Your task to perform on an android device: find which apps use the phone's location Image 0: 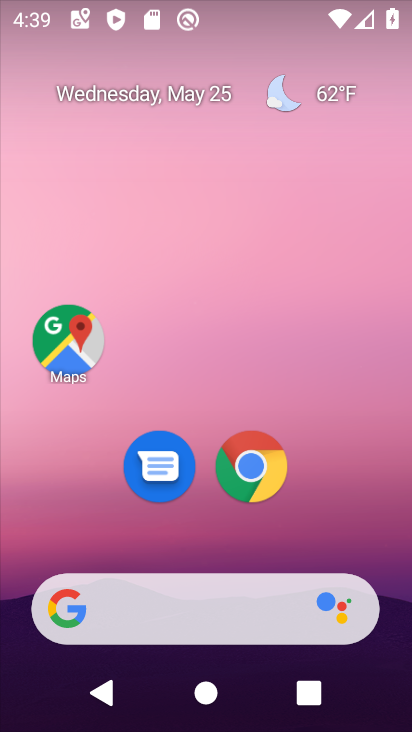
Step 0: drag from (325, 514) to (254, 126)
Your task to perform on an android device: find which apps use the phone's location Image 1: 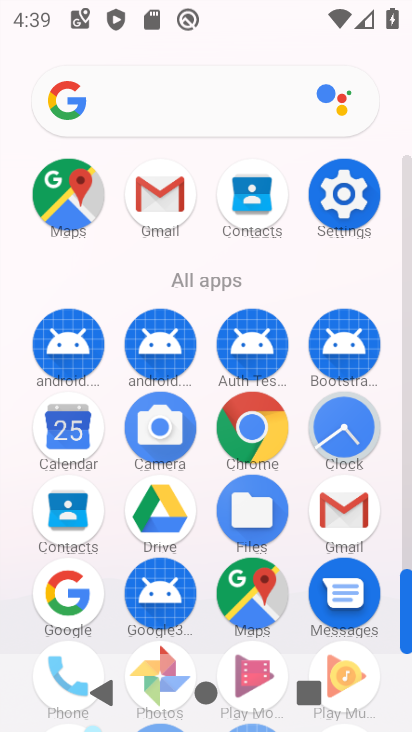
Step 1: click (345, 192)
Your task to perform on an android device: find which apps use the phone's location Image 2: 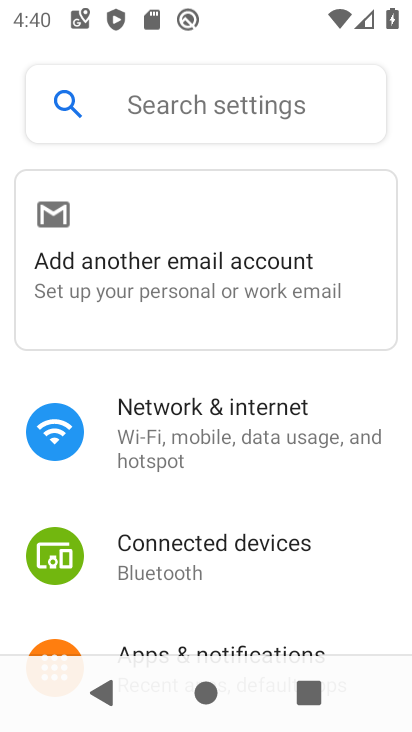
Step 2: drag from (208, 490) to (258, 387)
Your task to perform on an android device: find which apps use the phone's location Image 3: 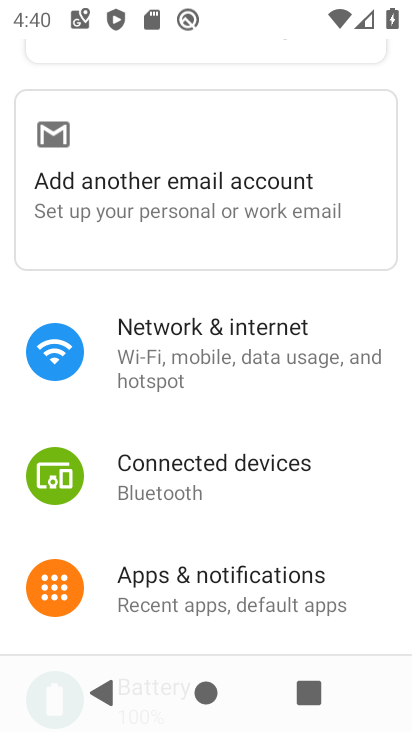
Step 3: drag from (217, 498) to (307, 378)
Your task to perform on an android device: find which apps use the phone's location Image 4: 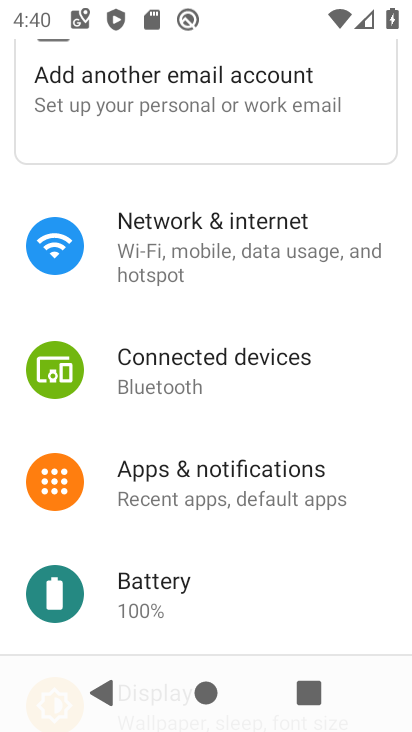
Step 4: drag from (222, 550) to (327, 416)
Your task to perform on an android device: find which apps use the phone's location Image 5: 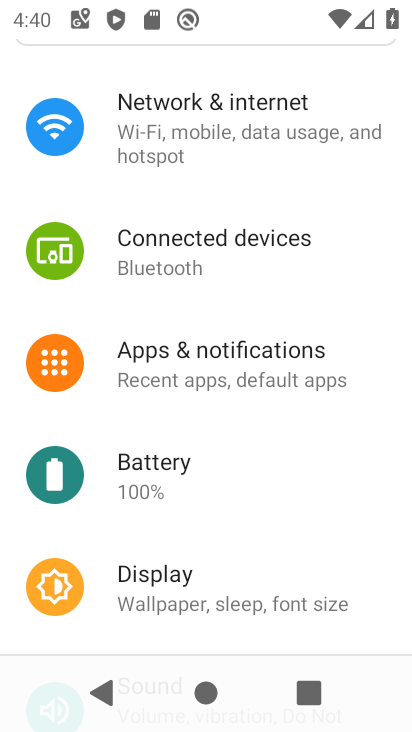
Step 5: drag from (216, 537) to (318, 404)
Your task to perform on an android device: find which apps use the phone's location Image 6: 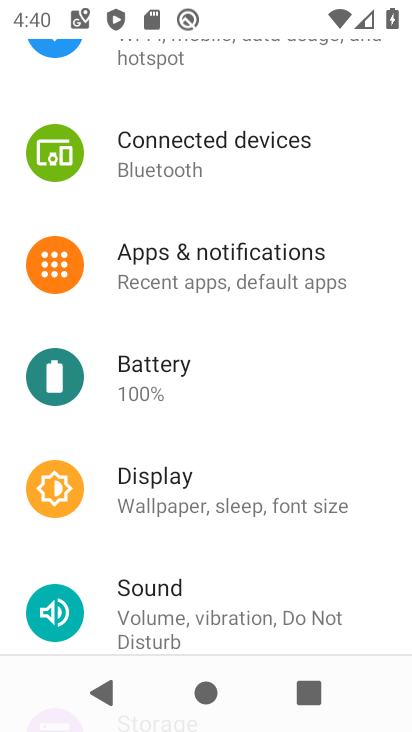
Step 6: drag from (202, 548) to (251, 452)
Your task to perform on an android device: find which apps use the phone's location Image 7: 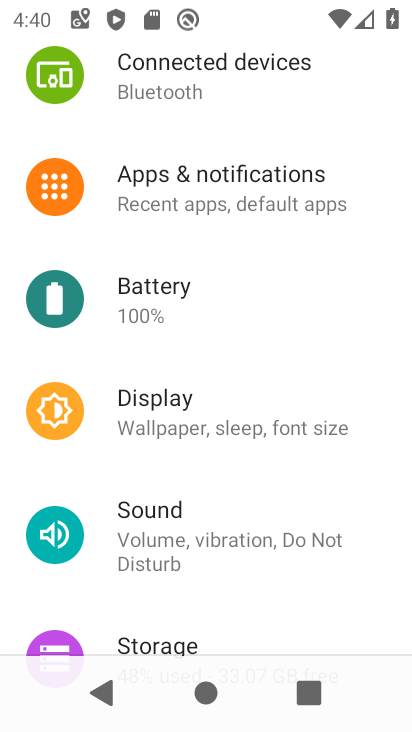
Step 7: drag from (173, 615) to (258, 493)
Your task to perform on an android device: find which apps use the phone's location Image 8: 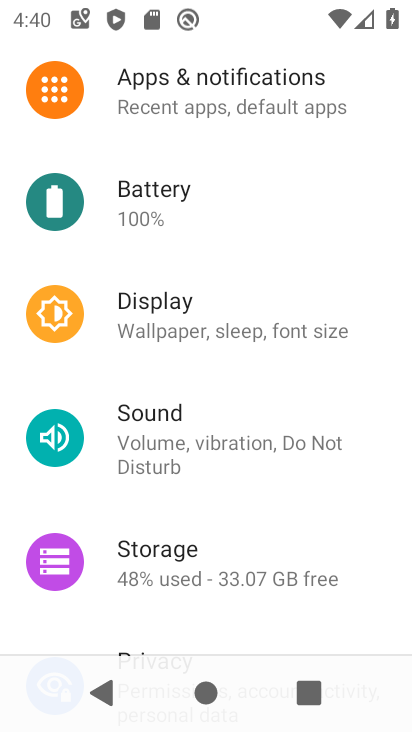
Step 8: drag from (205, 598) to (303, 476)
Your task to perform on an android device: find which apps use the phone's location Image 9: 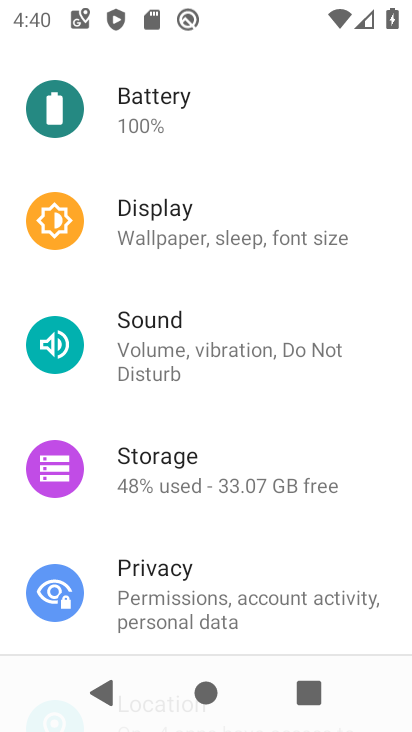
Step 9: drag from (219, 574) to (334, 407)
Your task to perform on an android device: find which apps use the phone's location Image 10: 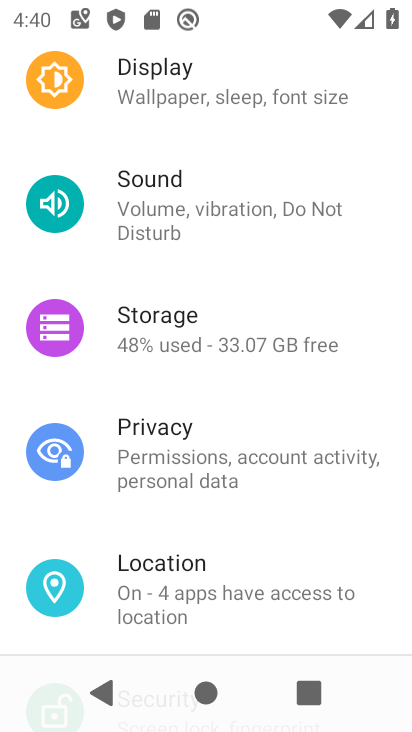
Step 10: drag from (230, 556) to (305, 434)
Your task to perform on an android device: find which apps use the phone's location Image 11: 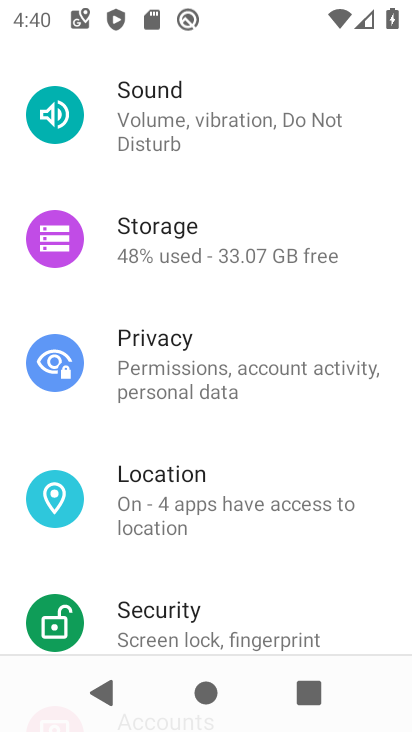
Step 11: click (176, 489)
Your task to perform on an android device: find which apps use the phone's location Image 12: 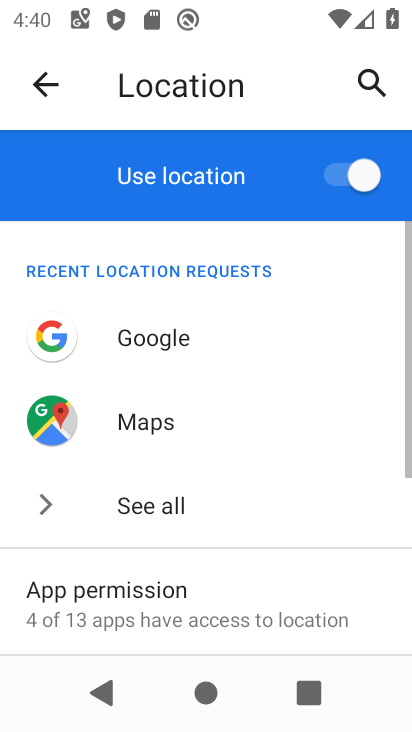
Step 12: click (147, 603)
Your task to perform on an android device: find which apps use the phone's location Image 13: 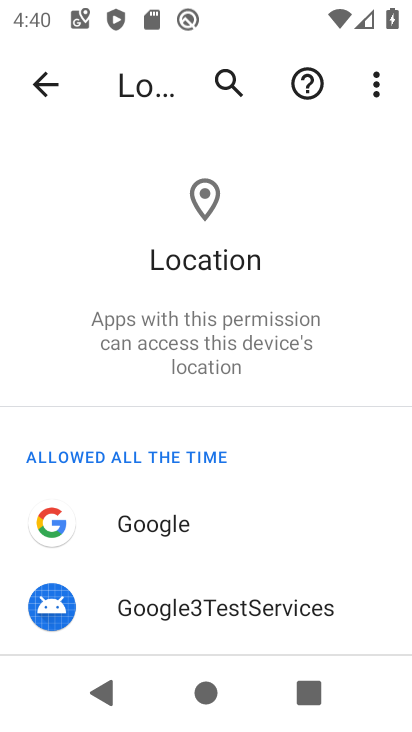
Step 13: drag from (173, 566) to (275, 390)
Your task to perform on an android device: find which apps use the phone's location Image 14: 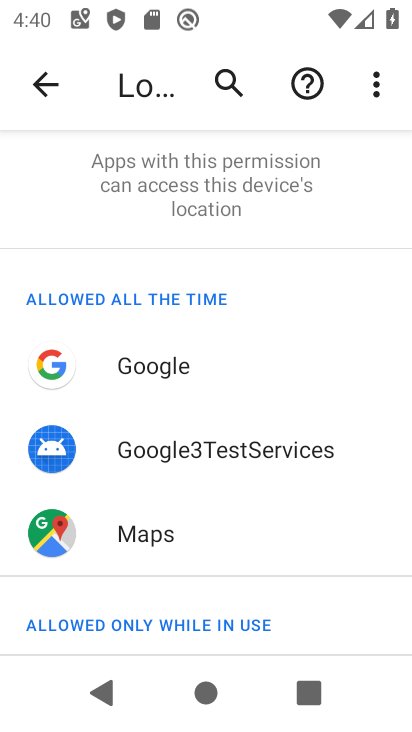
Step 14: click (131, 544)
Your task to perform on an android device: find which apps use the phone's location Image 15: 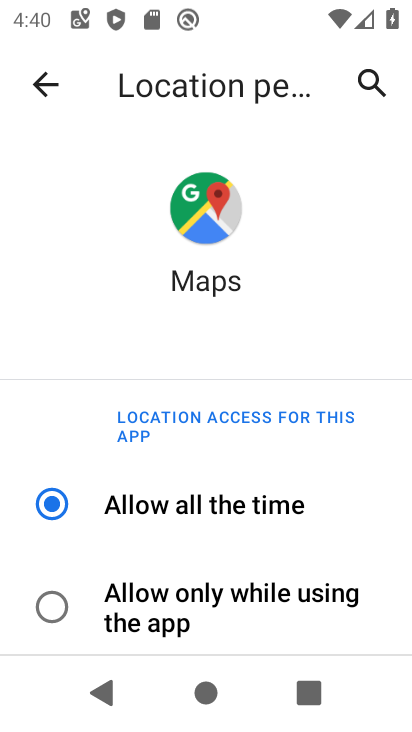
Step 15: task complete